Your task to perform on an android device: Open accessibility settings Image 0: 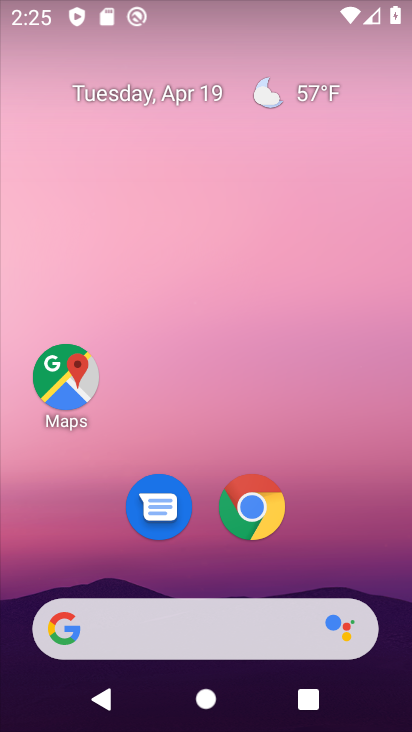
Step 0: drag from (264, 583) to (264, 188)
Your task to perform on an android device: Open accessibility settings Image 1: 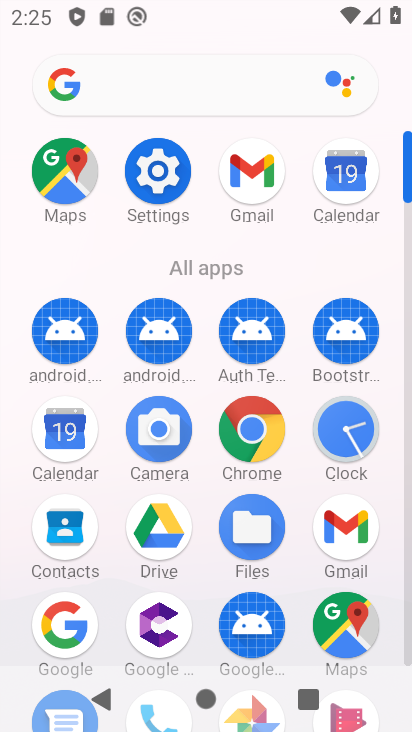
Step 1: drag from (244, 565) to (263, 151)
Your task to perform on an android device: Open accessibility settings Image 2: 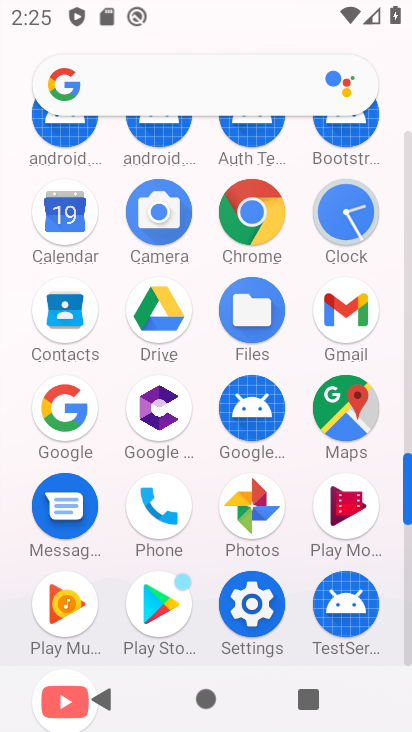
Step 2: click (261, 614)
Your task to perform on an android device: Open accessibility settings Image 3: 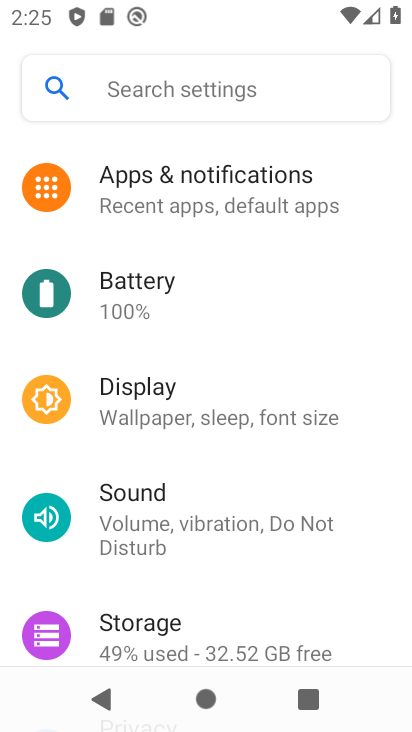
Step 3: drag from (284, 580) to (227, 193)
Your task to perform on an android device: Open accessibility settings Image 4: 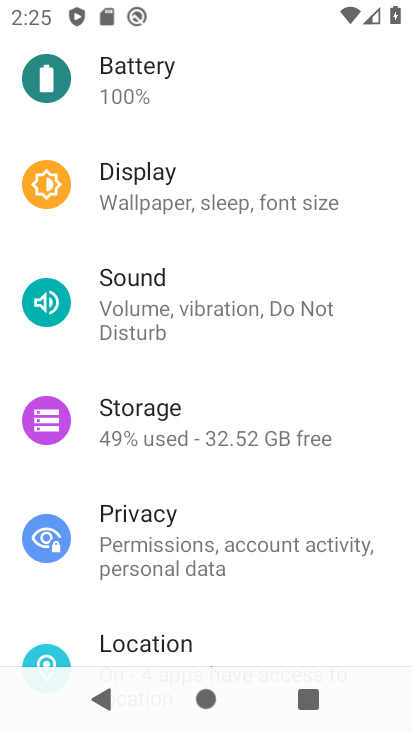
Step 4: drag from (322, 617) to (288, 220)
Your task to perform on an android device: Open accessibility settings Image 5: 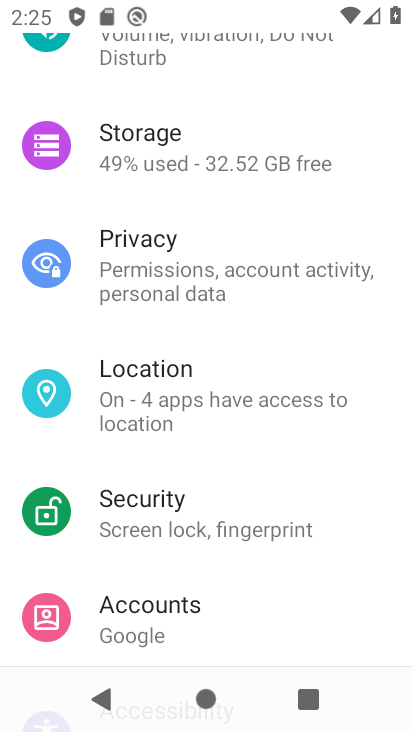
Step 5: drag from (321, 607) to (277, 166)
Your task to perform on an android device: Open accessibility settings Image 6: 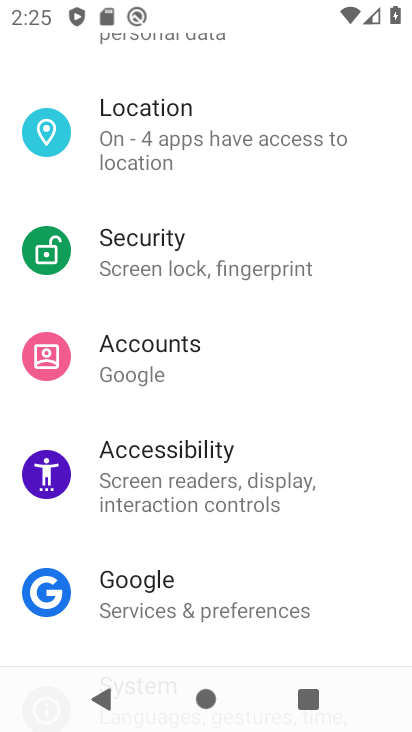
Step 6: click (255, 488)
Your task to perform on an android device: Open accessibility settings Image 7: 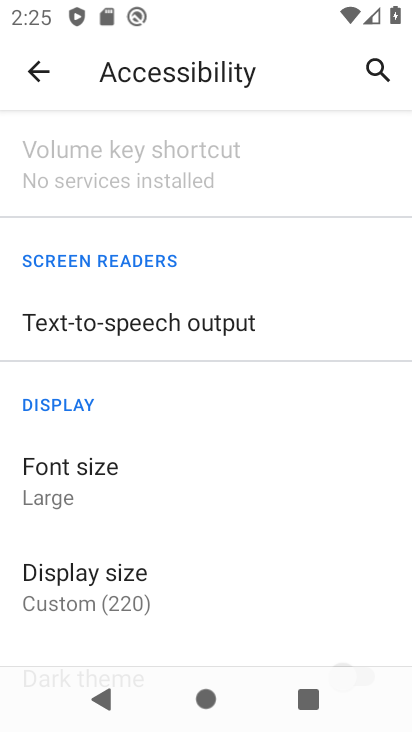
Step 7: task complete